Your task to perform on an android device: Open Chrome and go to the settings page Image 0: 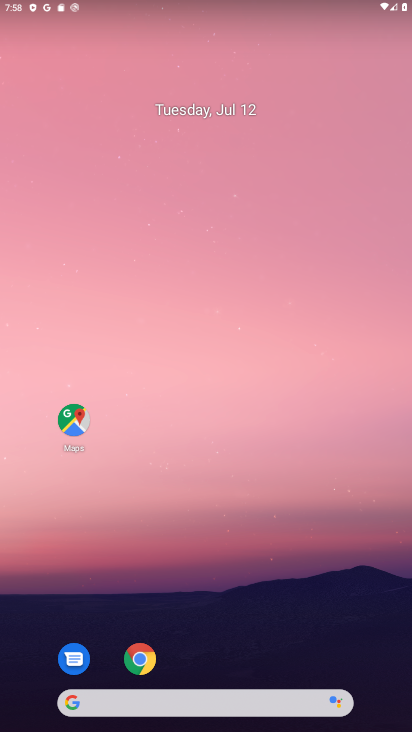
Step 0: drag from (181, 645) to (131, 206)
Your task to perform on an android device: Open Chrome and go to the settings page Image 1: 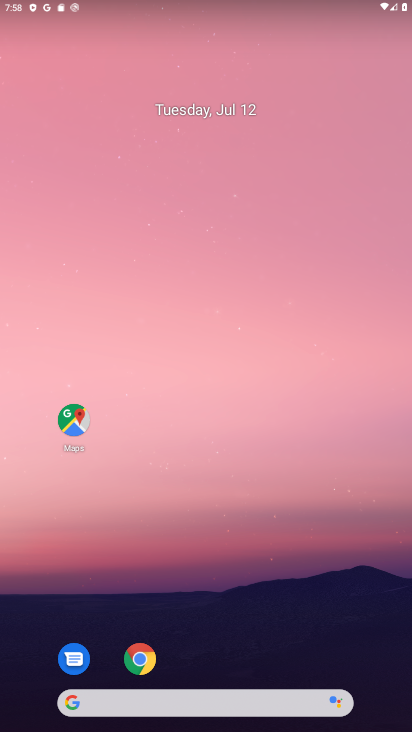
Step 1: drag from (242, 644) to (217, 295)
Your task to perform on an android device: Open Chrome and go to the settings page Image 2: 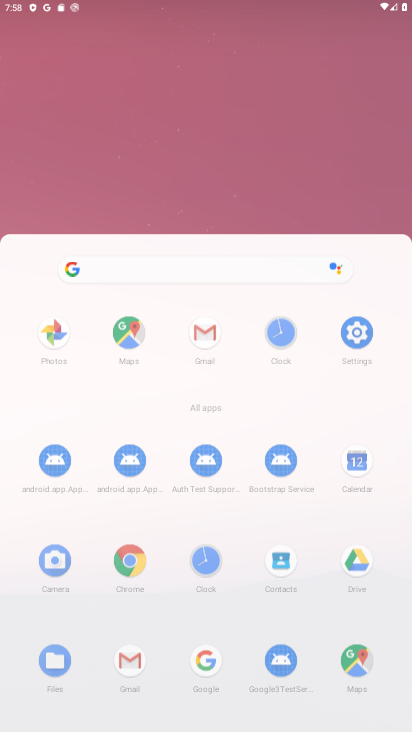
Step 2: drag from (270, 669) to (305, 263)
Your task to perform on an android device: Open Chrome and go to the settings page Image 3: 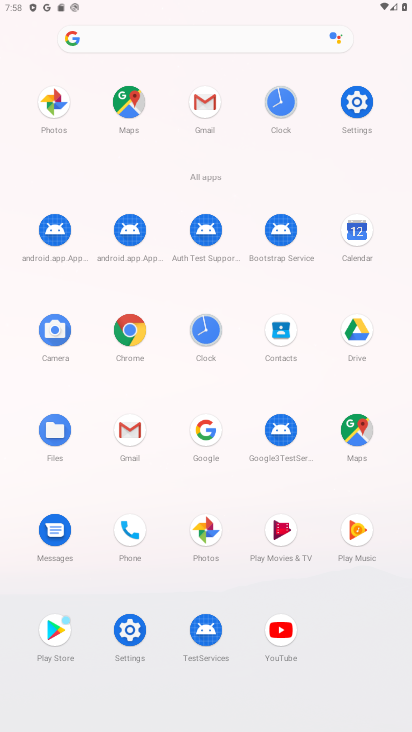
Step 3: click (357, 104)
Your task to perform on an android device: Open Chrome and go to the settings page Image 4: 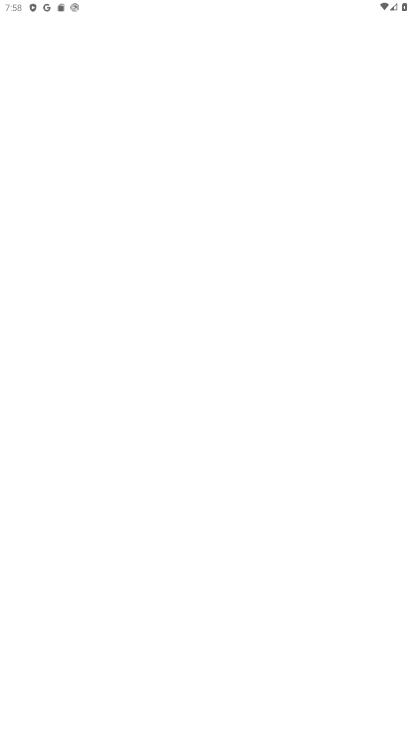
Step 4: click (123, 338)
Your task to perform on an android device: Open Chrome and go to the settings page Image 5: 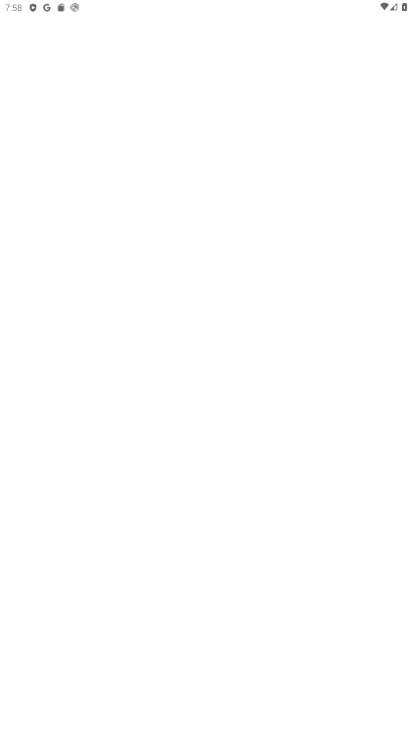
Step 5: press back button
Your task to perform on an android device: Open Chrome and go to the settings page Image 6: 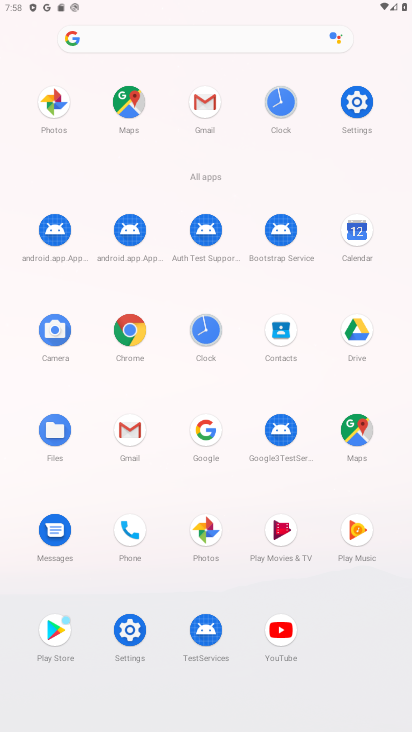
Step 6: click (129, 345)
Your task to perform on an android device: Open Chrome and go to the settings page Image 7: 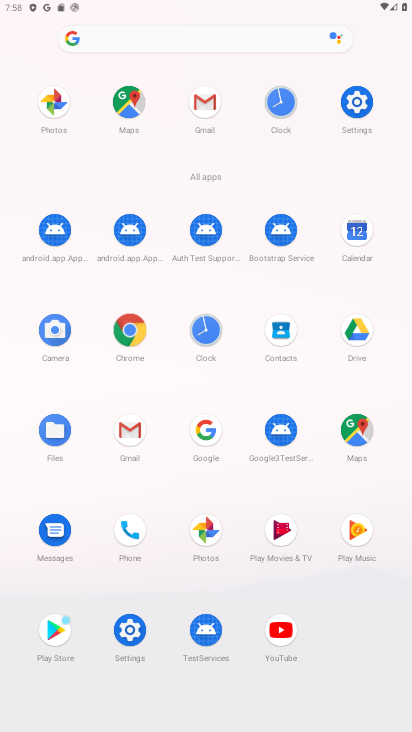
Step 7: click (130, 344)
Your task to perform on an android device: Open Chrome and go to the settings page Image 8: 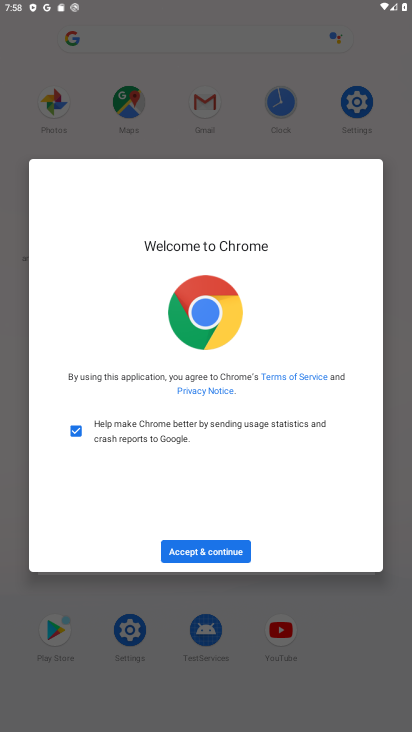
Step 8: click (197, 551)
Your task to perform on an android device: Open Chrome and go to the settings page Image 9: 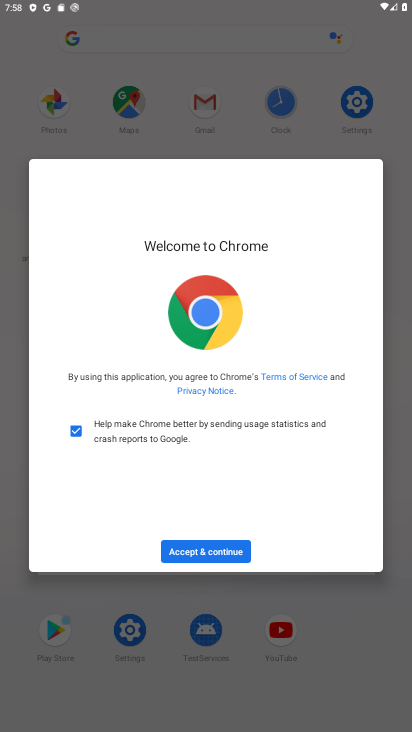
Step 9: click (200, 551)
Your task to perform on an android device: Open Chrome and go to the settings page Image 10: 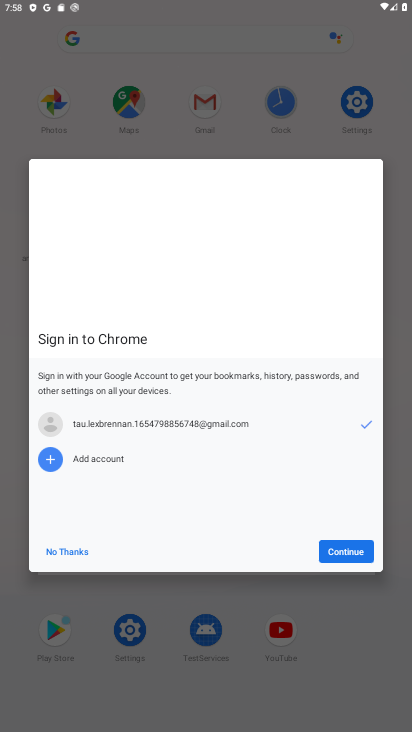
Step 10: click (204, 551)
Your task to perform on an android device: Open Chrome and go to the settings page Image 11: 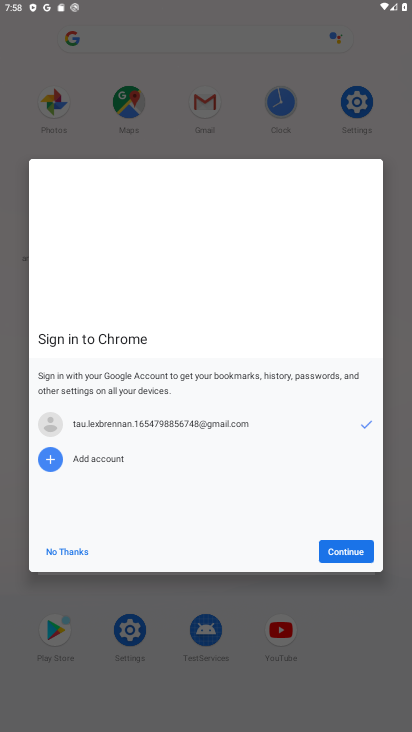
Step 11: click (207, 546)
Your task to perform on an android device: Open Chrome and go to the settings page Image 12: 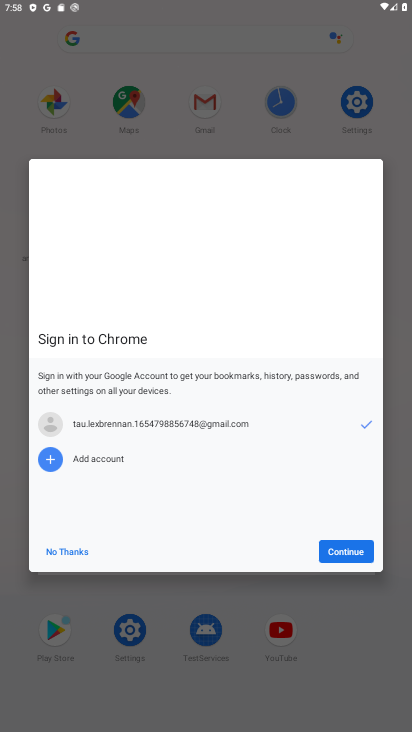
Step 12: click (338, 553)
Your task to perform on an android device: Open Chrome and go to the settings page Image 13: 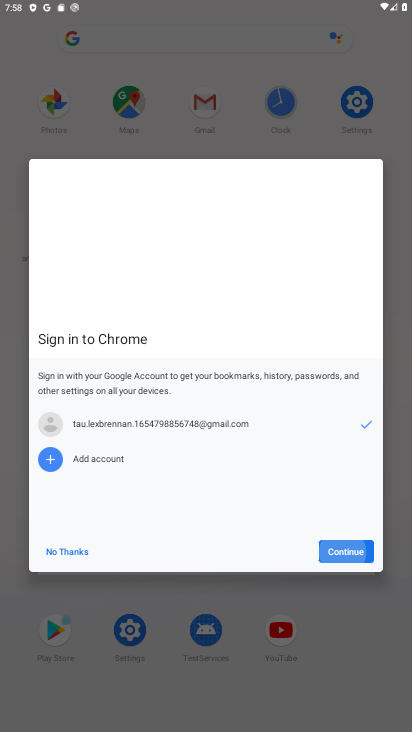
Step 13: click (339, 554)
Your task to perform on an android device: Open Chrome and go to the settings page Image 14: 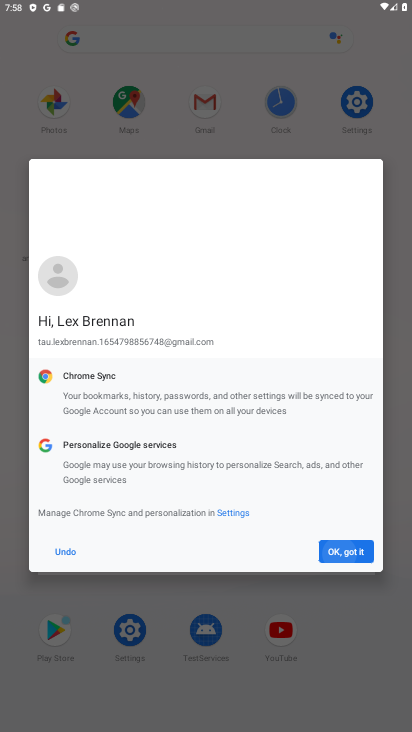
Step 14: click (345, 552)
Your task to perform on an android device: Open Chrome and go to the settings page Image 15: 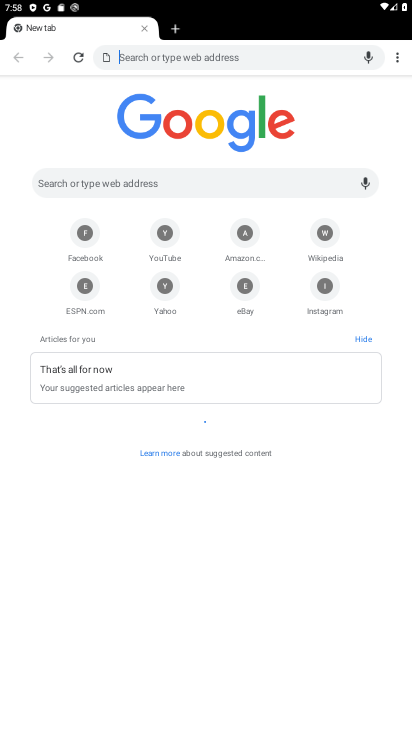
Step 15: click (399, 55)
Your task to perform on an android device: Open Chrome and go to the settings page Image 16: 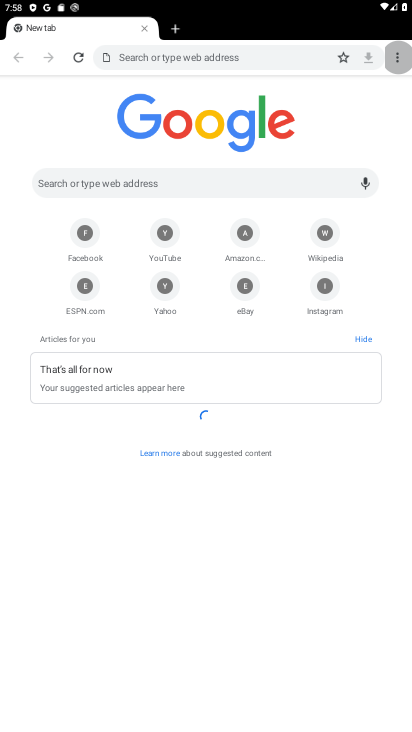
Step 16: click (399, 55)
Your task to perform on an android device: Open Chrome and go to the settings page Image 17: 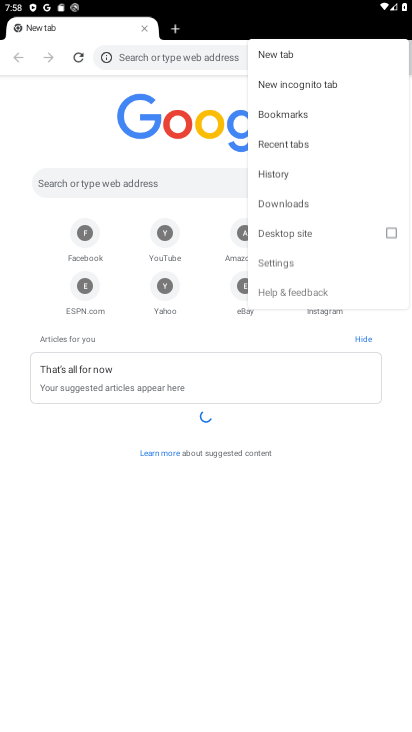
Step 17: drag from (399, 55) to (275, 261)
Your task to perform on an android device: Open Chrome and go to the settings page Image 18: 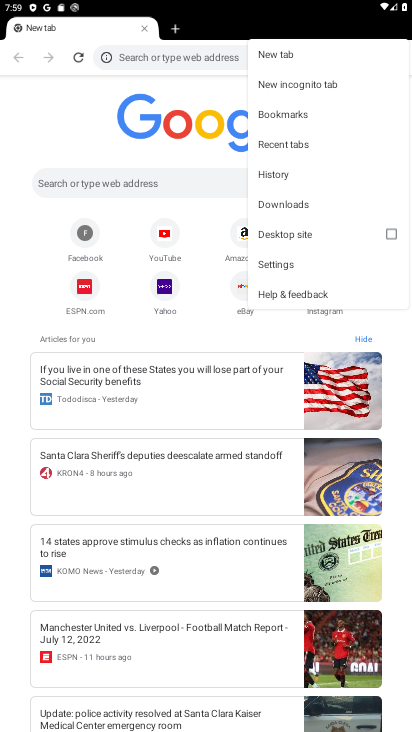
Step 18: click (275, 261)
Your task to perform on an android device: Open Chrome and go to the settings page Image 19: 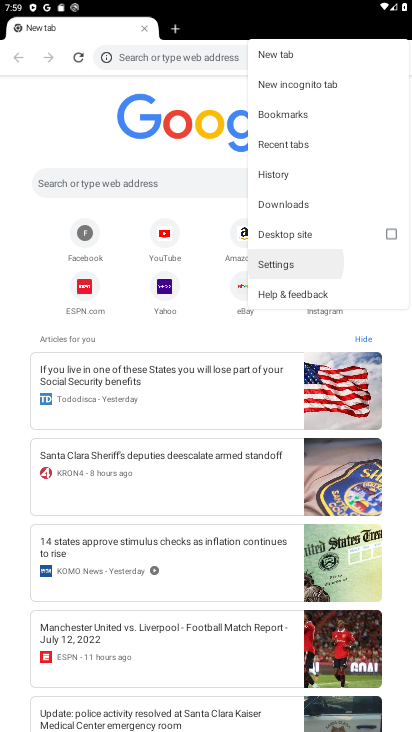
Step 19: click (274, 261)
Your task to perform on an android device: Open Chrome and go to the settings page Image 20: 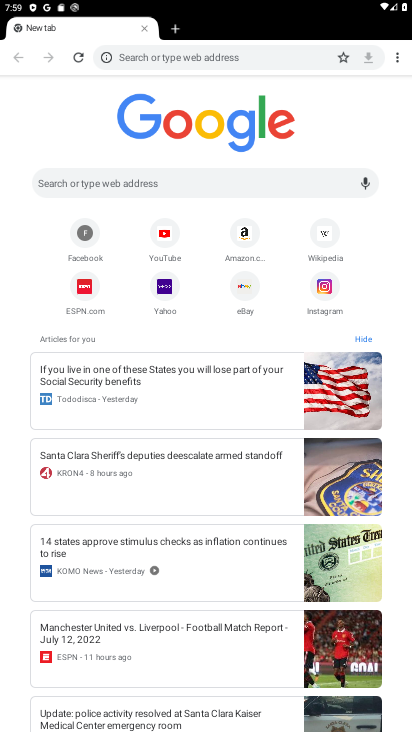
Step 20: click (273, 262)
Your task to perform on an android device: Open Chrome and go to the settings page Image 21: 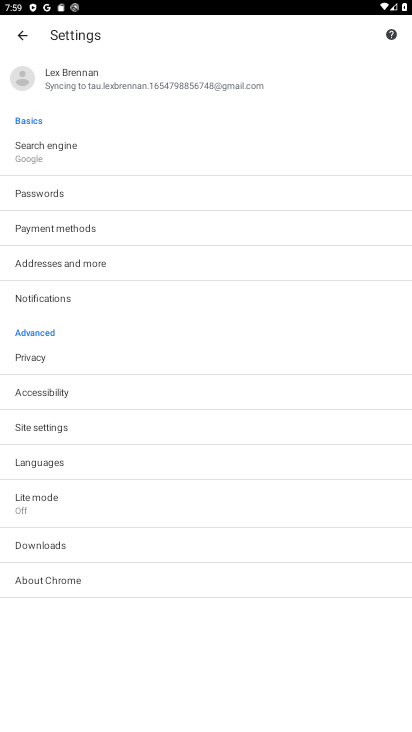
Step 21: task complete